Your task to perform on an android device: check android version Image 0: 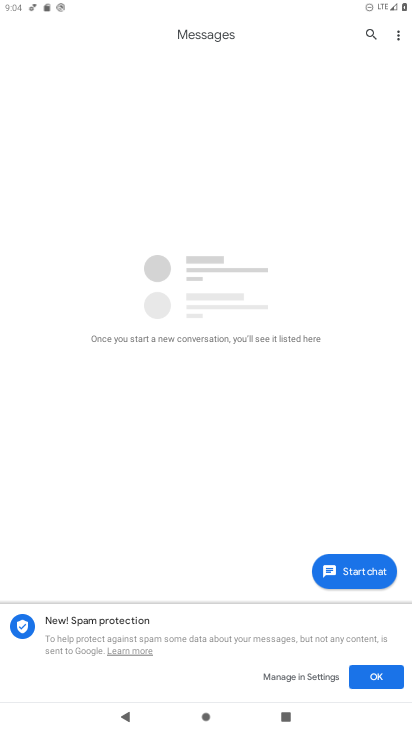
Step 0: drag from (266, 261) to (250, 609)
Your task to perform on an android device: check android version Image 1: 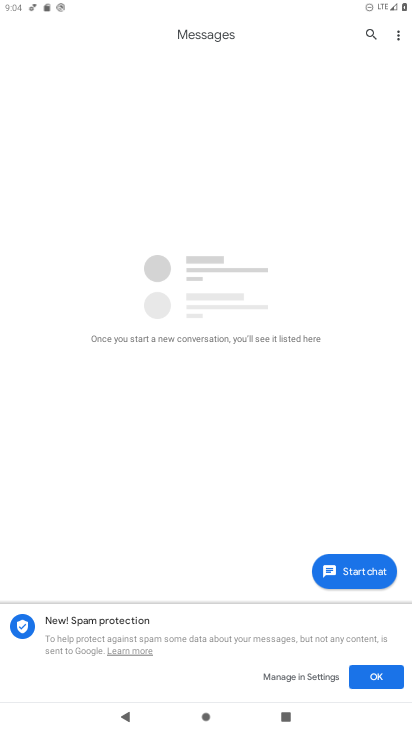
Step 1: drag from (169, 5) to (142, 480)
Your task to perform on an android device: check android version Image 2: 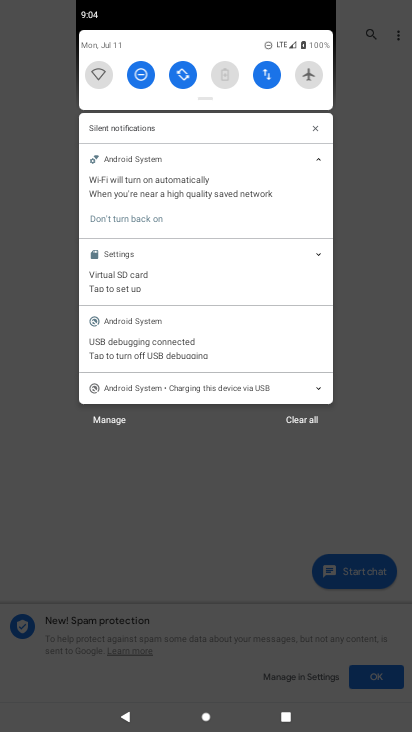
Step 2: drag from (185, 49) to (141, 557)
Your task to perform on an android device: check android version Image 3: 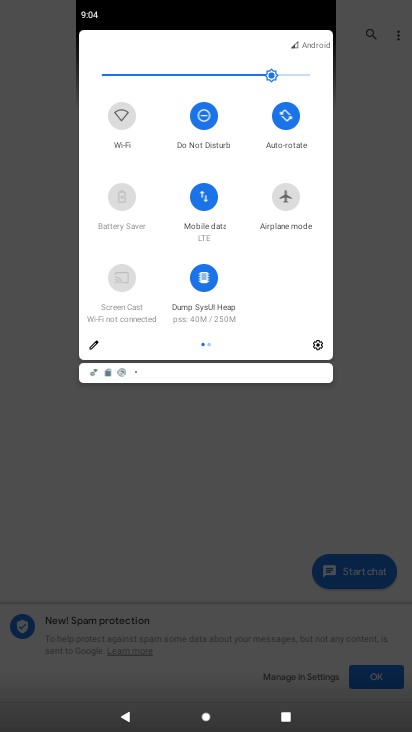
Step 3: click (320, 347)
Your task to perform on an android device: check android version Image 4: 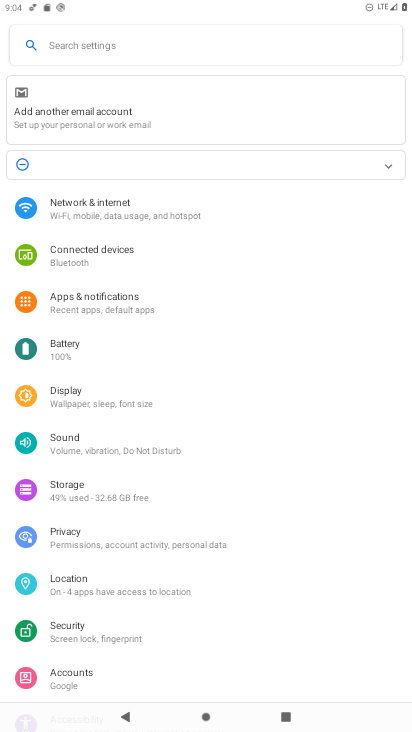
Step 4: drag from (146, 627) to (262, 97)
Your task to perform on an android device: check android version Image 5: 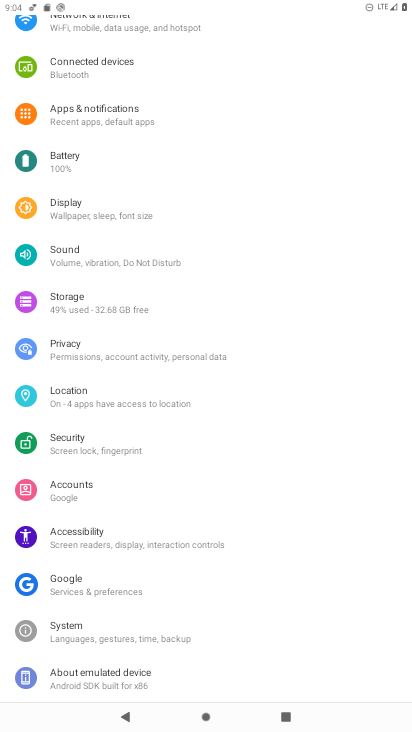
Step 5: click (57, 668)
Your task to perform on an android device: check android version Image 6: 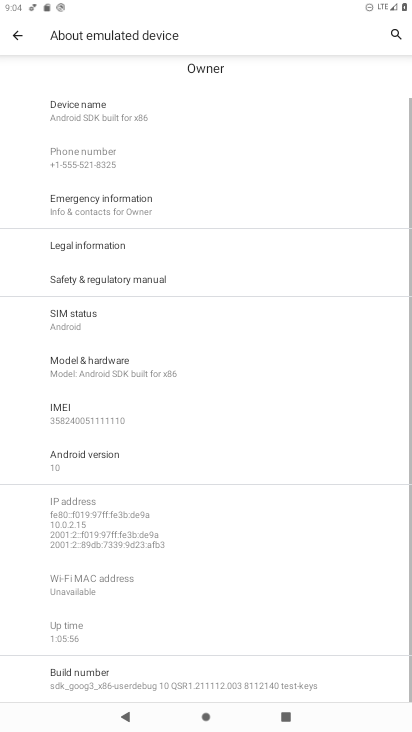
Step 6: click (98, 473)
Your task to perform on an android device: check android version Image 7: 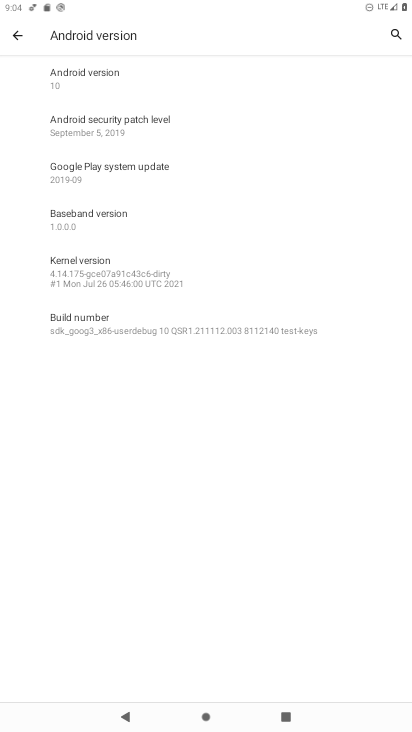
Step 7: task complete